Your task to perform on an android device: Open the calendar and show me this week's events? Image 0: 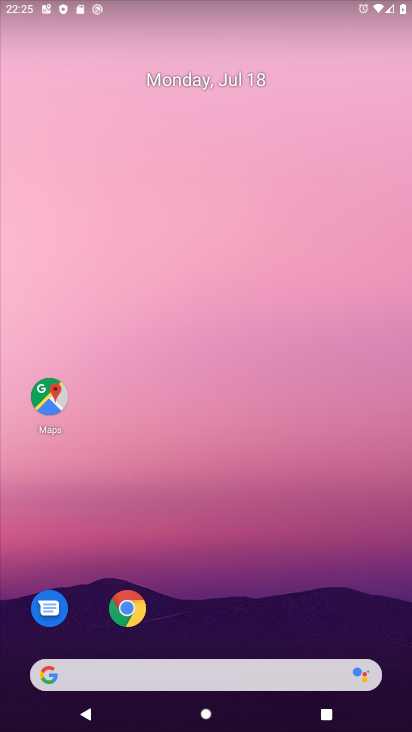
Step 0: drag from (24, 687) to (309, 34)
Your task to perform on an android device: Open the calendar and show me this week's events? Image 1: 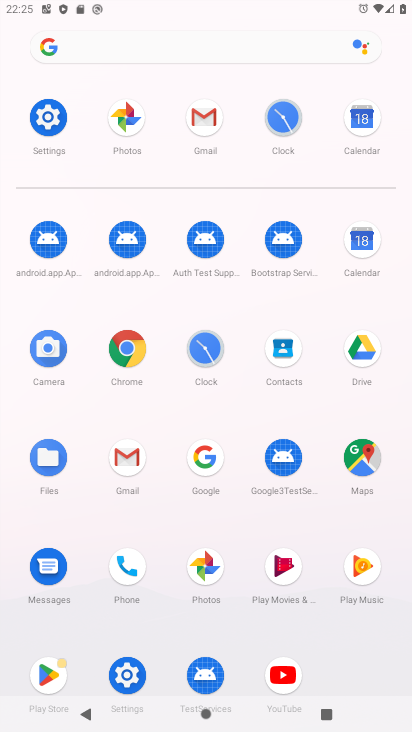
Step 1: click (356, 269)
Your task to perform on an android device: Open the calendar and show me this week's events? Image 2: 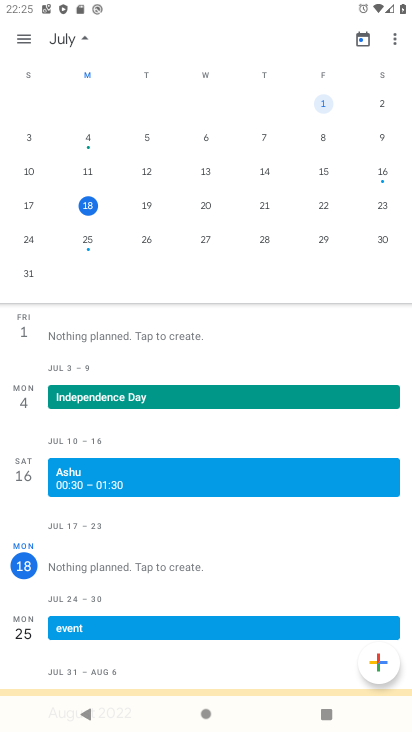
Step 2: task complete